Your task to perform on an android device: Find coffee shops on Maps Image 0: 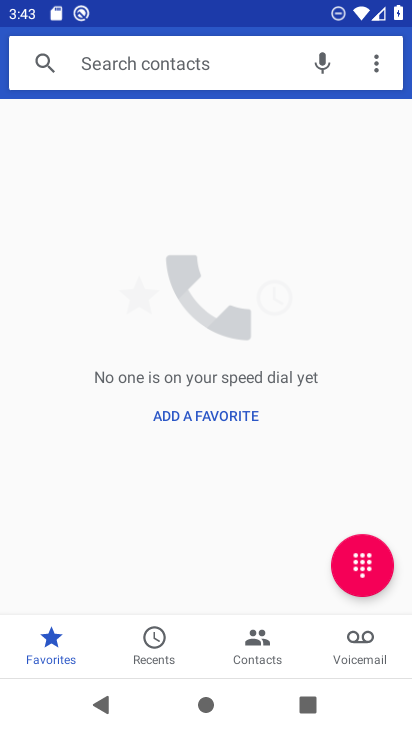
Step 0: press home button
Your task to perform on an android device: Find coffee shops on Maps Image 1: 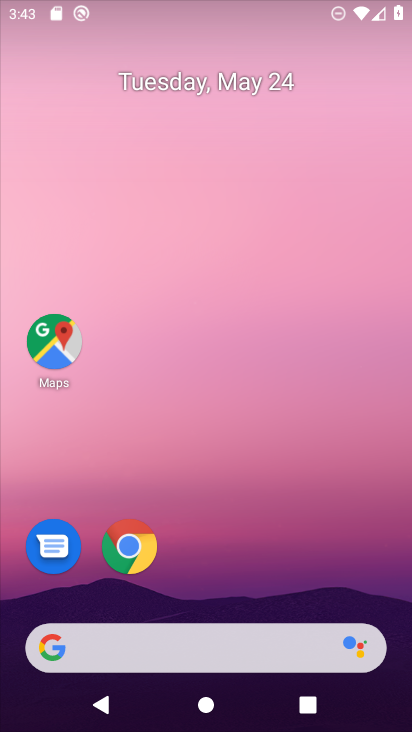
Step 1: drag from (265, 546) to (195, 74)
Your task to perform on an android device: Find coffee shops on Maps Image 2: 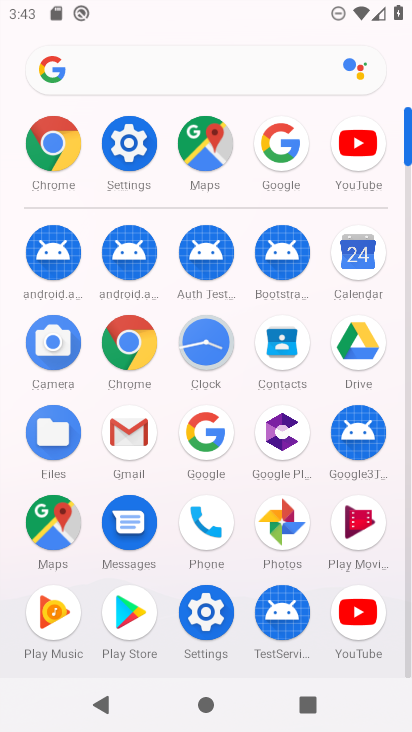
Step 2: click (59, 529)
Your task to perform on an android device: Find coffee shops on Maps Image 3: 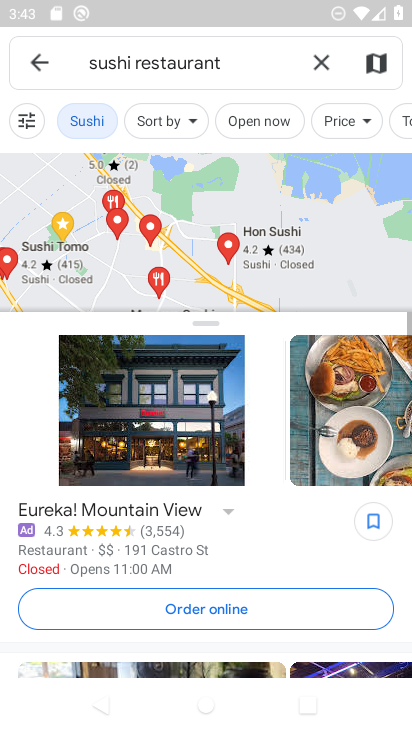
Step 3: click (317, 58)
Your task to perform on an android device: Find coffee shops on Maps Image 4: 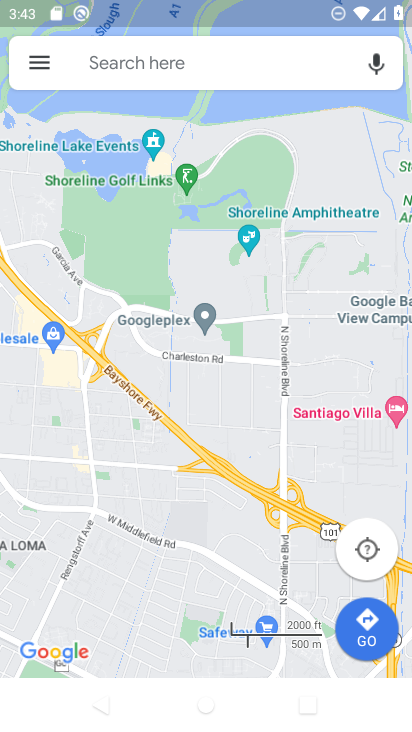
Step 4: click (222, 64)
Your task to perform on an android device: Find coffee shops on Maps Image 5: 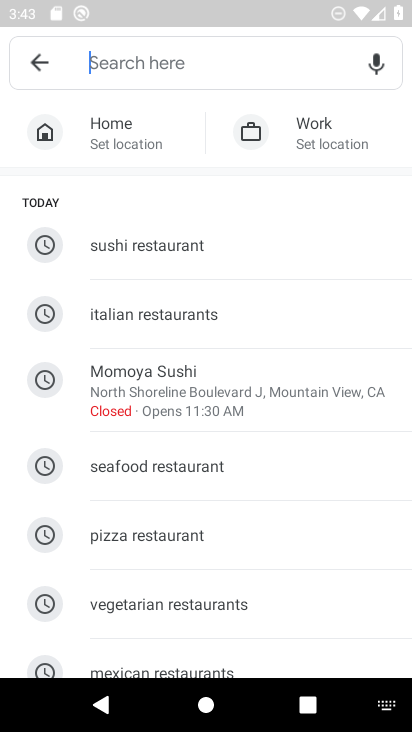
Step 5: type "coffee shops"
Your task to perform on an android device: Find coffee shops on Maps Image 6: 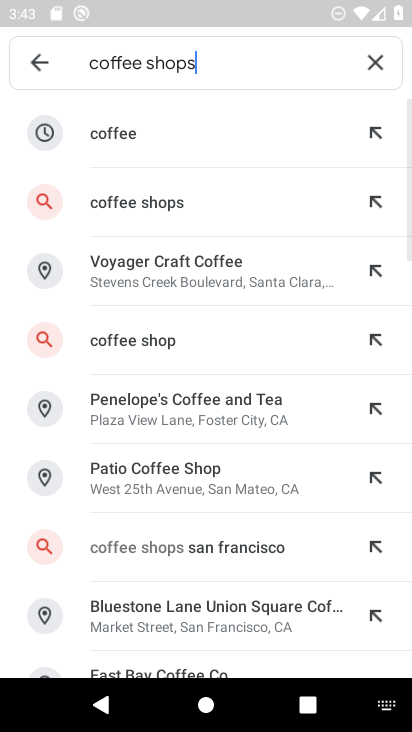
Step 6: click (128, 204)
Your task to perform on an android device: Find coffee shops on Maps Image 7: 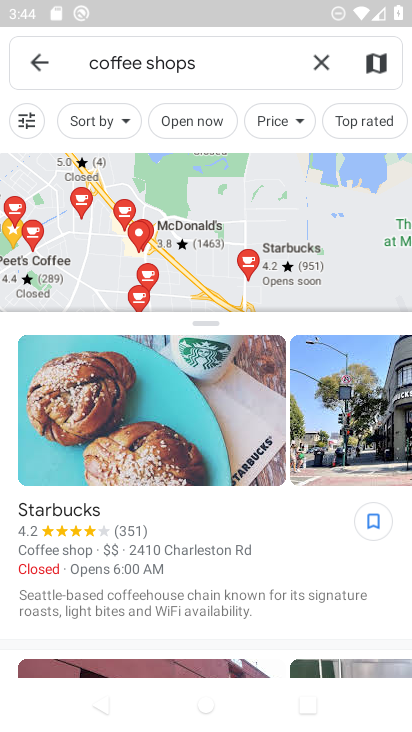
Step 7: task complete